Your task to perform on an android device: Open Google Image 0: 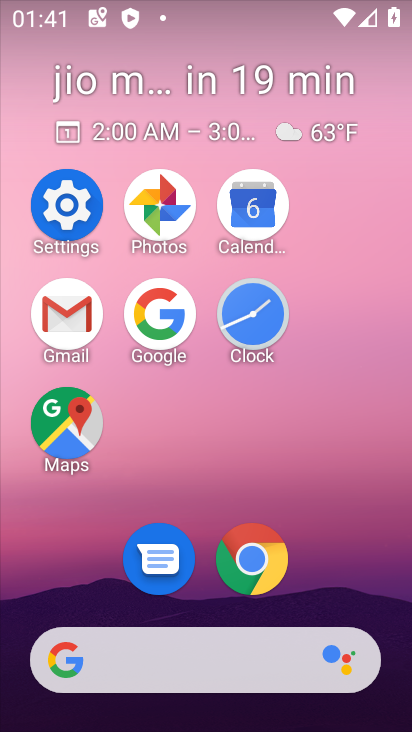
Step 0: click (167, 295)
Your task to perform on an android device: Open Google Image 1: 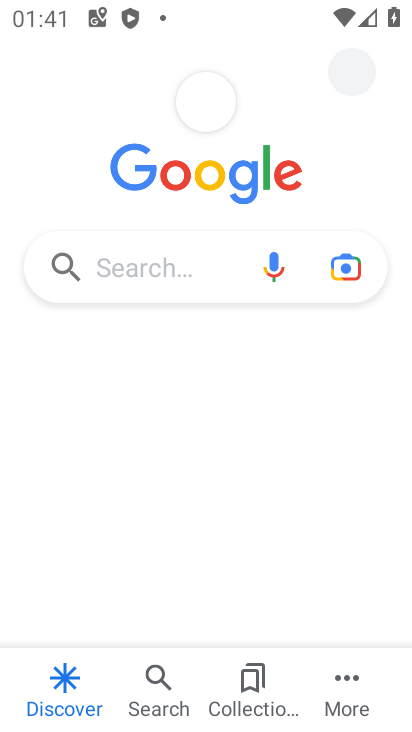
Step 1: task complete